Your task to perform on an android device: delete a single message in the gmail app Image 0: 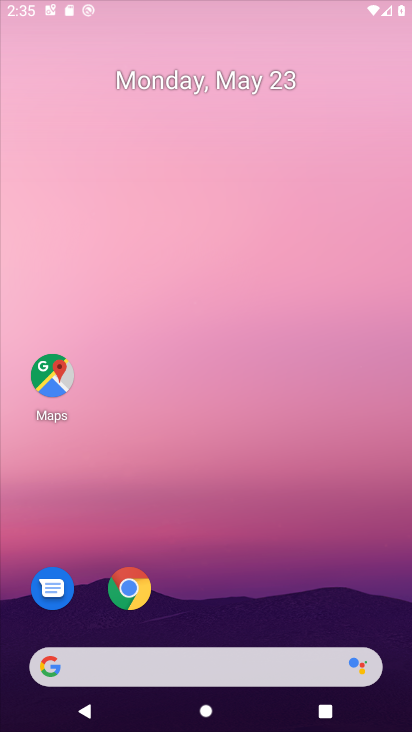
Step 0: drag from (204, 610) to (348, 215)
Your task to perform on an android device: delete a single message in the gmail app Image 1: 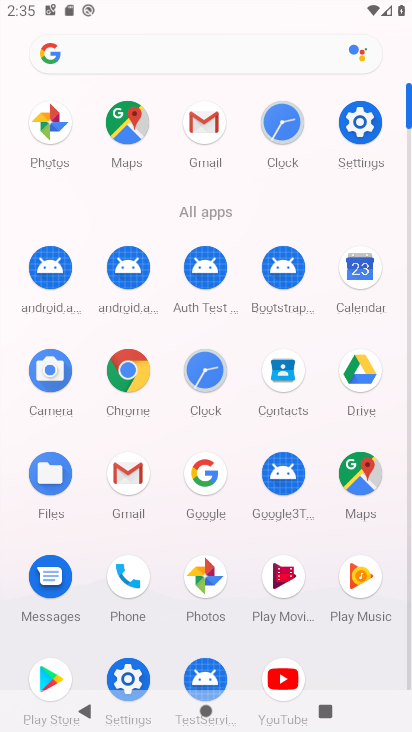
Step 1: click (131, 477)
Your task to perform on an android device: delete a single message in the gmail app Image 2: 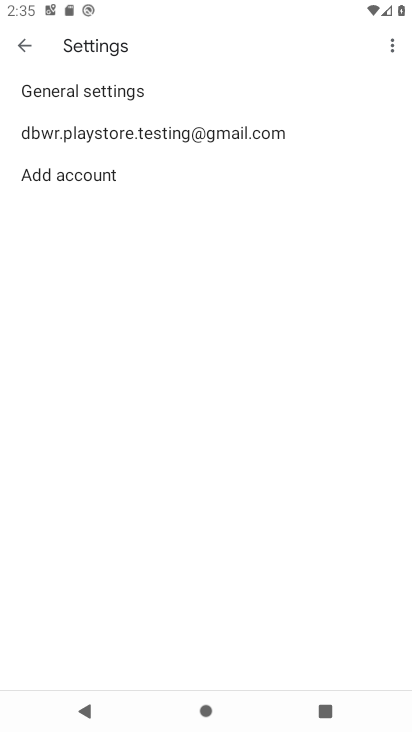
Step 2: click (277, 404)
Your task to perform on an android device: delete a single message in the gmail app Image 3: 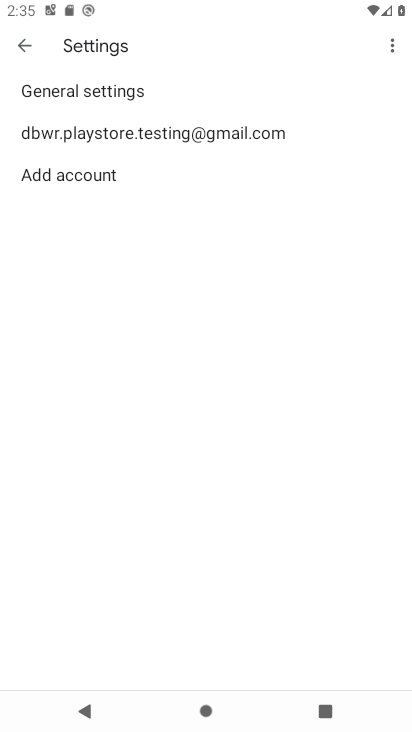
Step 3: click (22, 39)
Your task to perform on an android device: delete a single message in the gmail app Image 4: 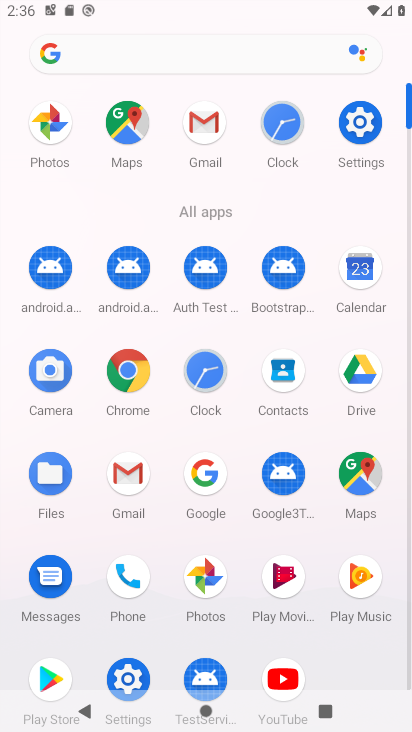
Step 4: click (186, 135)
Your task to perform on an android device: delete a single message in the gmail app Image 5: 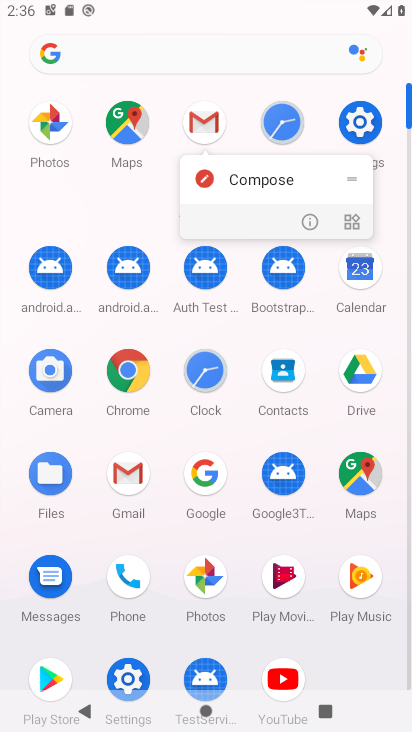
Step 5: click (309, 219)
Your task to perform on an android device: delete a single message in the gmail app Image 6: 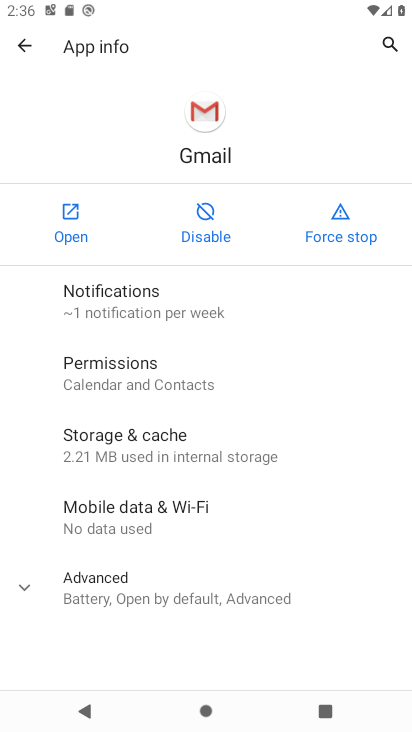
Step 6: click (65, 215)
Your task to perform on an android device: delete a single message in the gmail app Image 7: 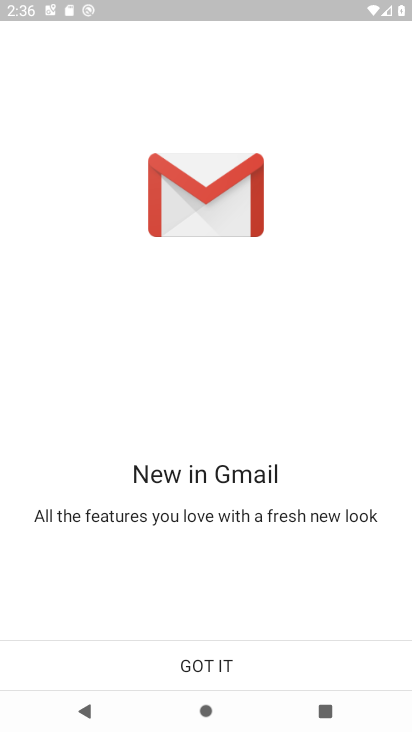
Step 7: click (185, 661)
Your task to perform on an android device: delete a single message in the gmail app Image 8: 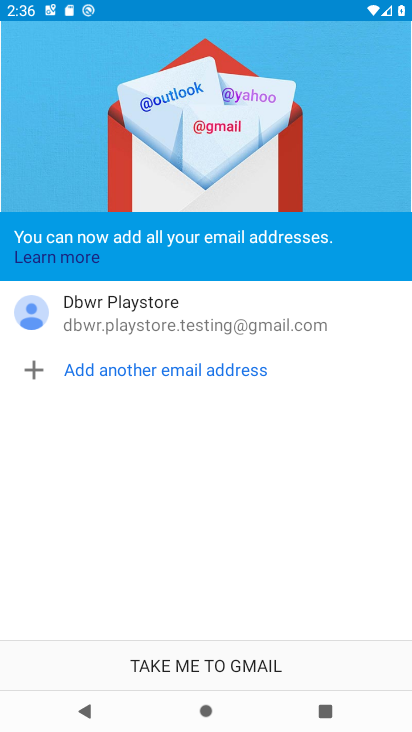
Step 8: click (185, 661)
Your task to perform on an android device: delete a single message in the gmail app Image 9: 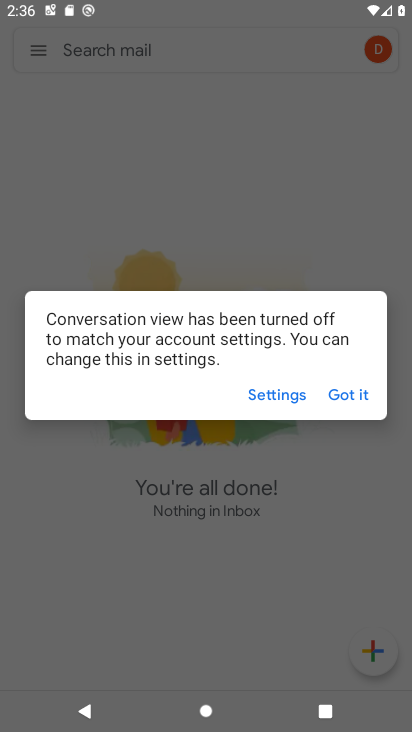
Step 9: click (359, 401)
Your task to perform on an android device: delete a single message in the gmail app Image 10: 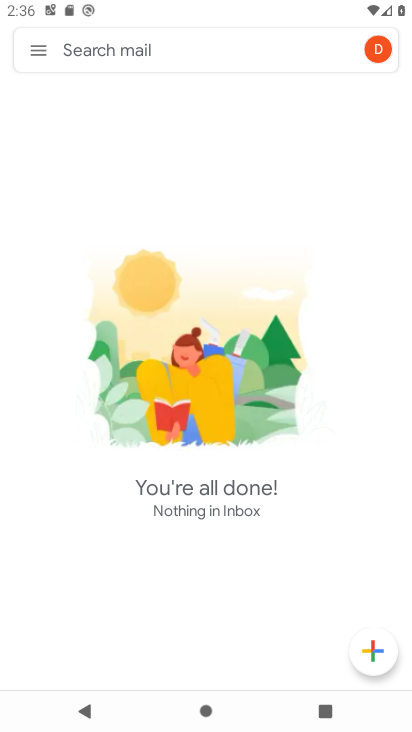
Step 10: click (43, 44)
Your task to perform on an android device: delete a single message in the gmail app Image 11: 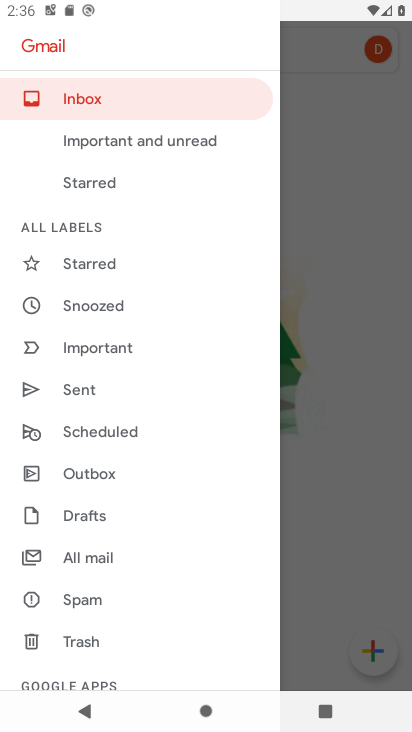
Step 11: click (105, 110)
Your task to perform on an android device: delete a single message in the gmail app Image 12: 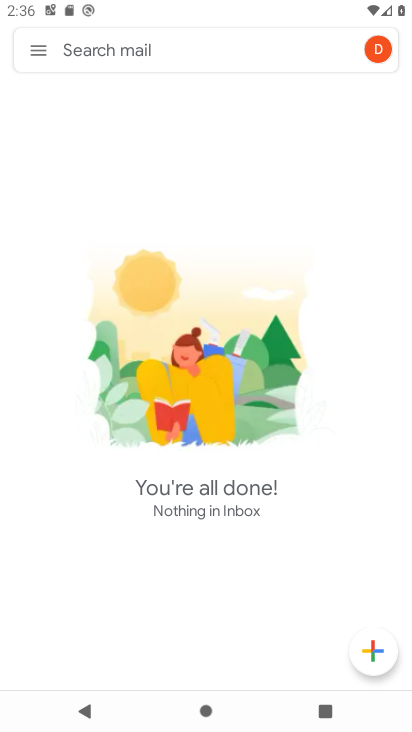
Step 12: click (281, 392)
Your task to perform on an android device: delete a single message in the gmail app Image 13: 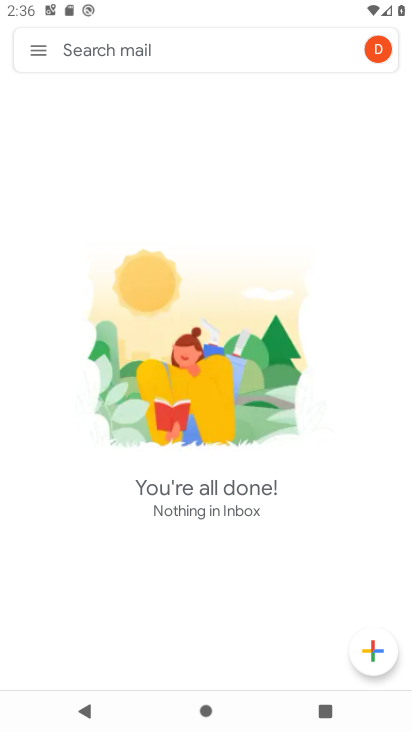
Step 13: task complete